Your task to perform on an android device: toggle airplane mode Image 0: 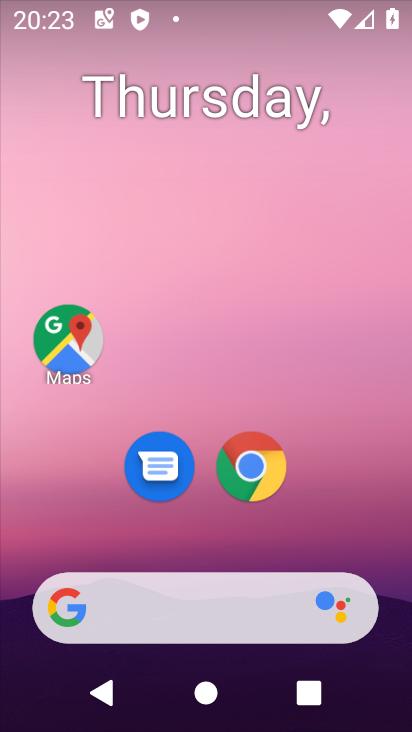
Step 0: drag from (301, 0) to (281, 731)
Your task to perform on an android device: toggle airplane mode Image 1: 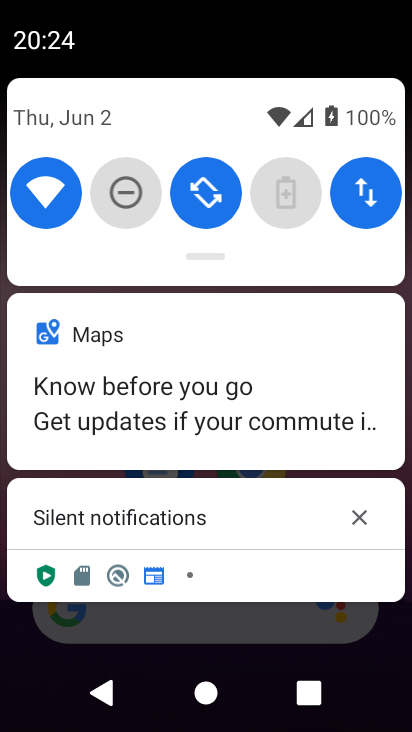
Step 1: drag from (232, 264) to (243, 726)
Your task to perform on an android device: toggle airplane mode Image 2: 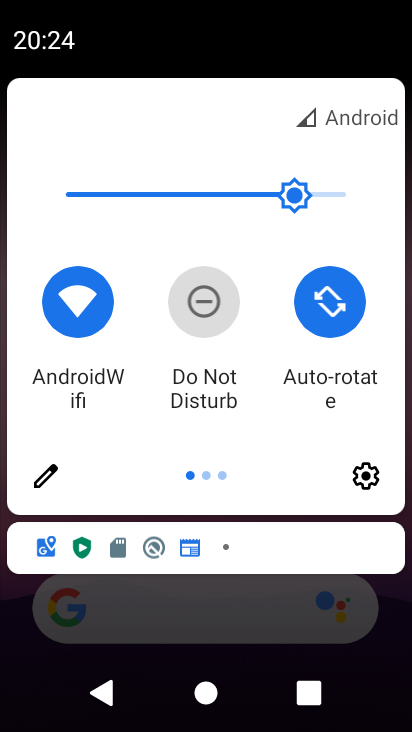
Step 2: drag from (313, 433) to (0, 409)
Your task to perform on an android device: toggle airplane mode Image 3: 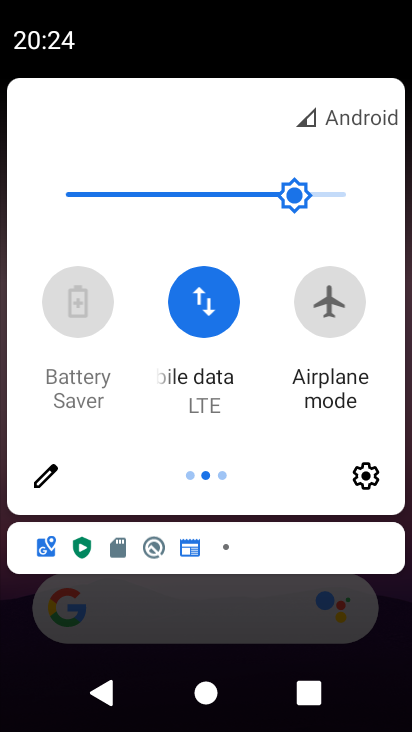
Step 3: drag from (331, 427) to (130, 410)
Your task to perform on an android device: toggle airplane mode Image 4: 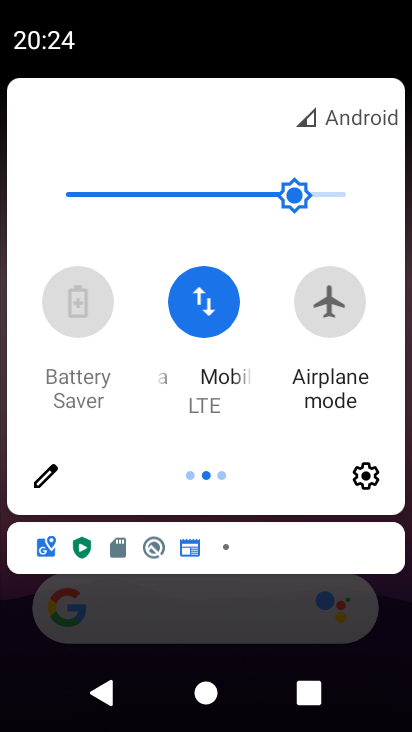
Step 4: click (340, 310)
Your task to perform on an android device: toggle airplane mode Image 5: 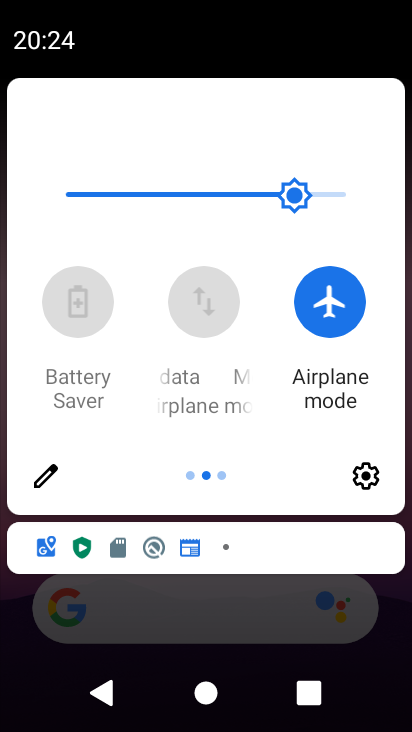
Step 5: task complete